Your task to perform on an android device: Do I have any events this weekend? Image 0: 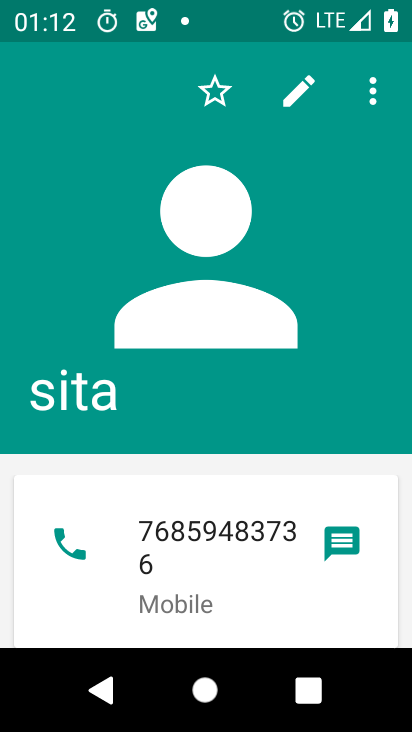
Step 0: press home button
Your task to perform on an android device: Do I have any events this weekend? Image 1: 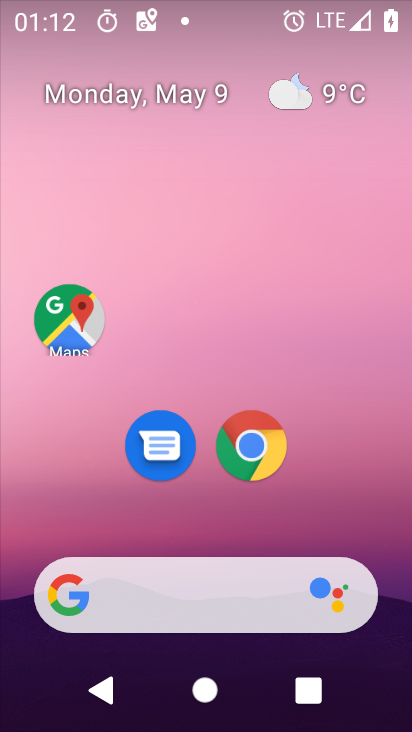
Step 1: drag from (376, 546) to (388, 37)
Your task to perform on an android device: Do I have any events this weekend? Image 2: 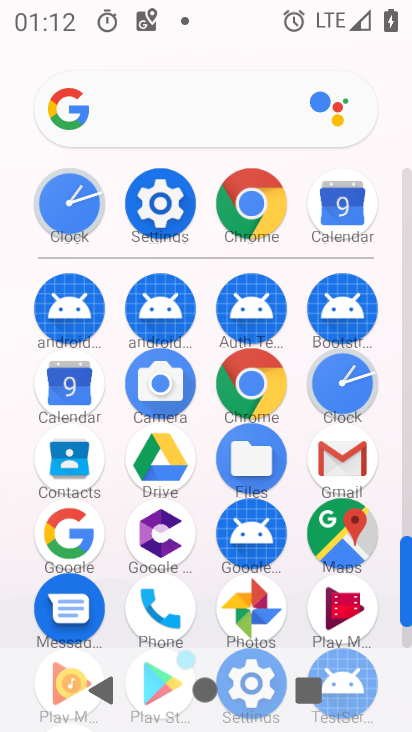
Step 2: click (342, 214)
Your task to perform on an android device: Do I have any events this weekend? Image 3: 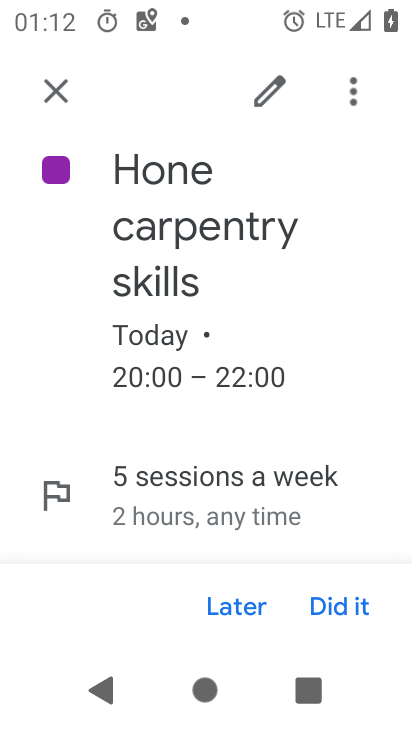
Step 3: click (63, 105)
Your task to perform on an android device: Do I have any events this weekend? Image 4: 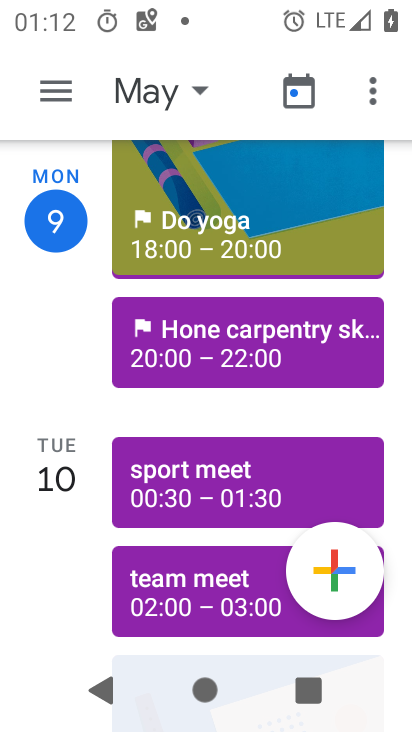
Step 4: click (197, 90)
Your task to perform on an android device: Do I have any events this weekend? Image 5: 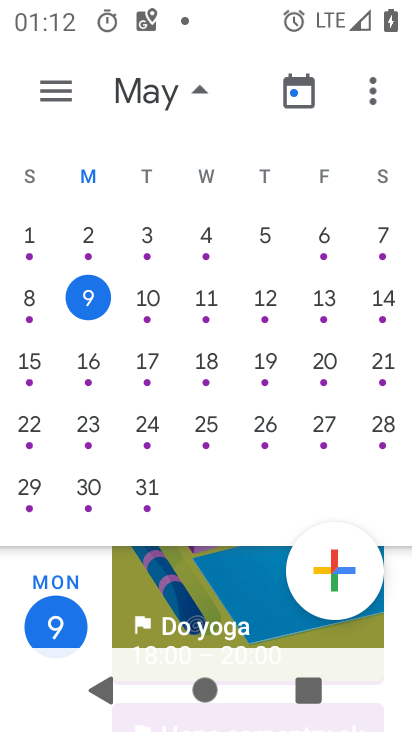
Step 5: click (55, 97)
Your task to perform on an android device: Do I have any events this weekend? Image 6: 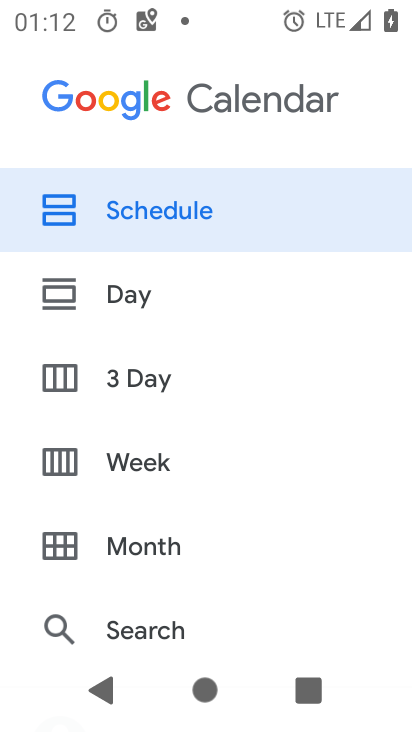
Step 6: click (127, 455)
Your task to perform on an android device: Do I have any events this weekend? Image 7: 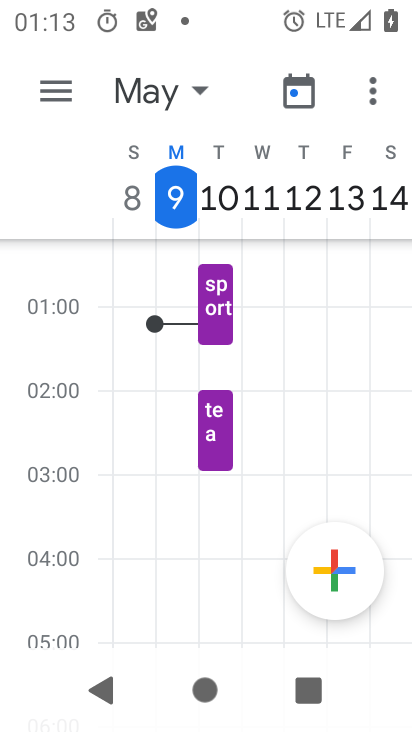
Step 7: drag from (314, 452) to (276, 188)
Your task to perform on an android device: Do I have any events this weekend? Image 8: 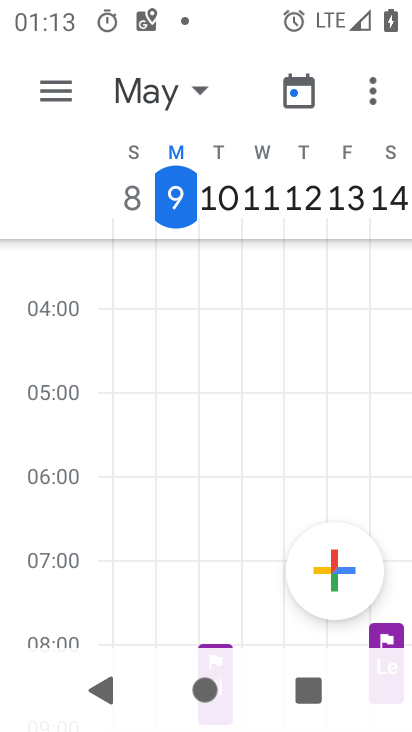
Step 8: drag from (245, 437) to (254, 223)
Your task to perform on an android device: Do I have any events this weekend? Image 9: 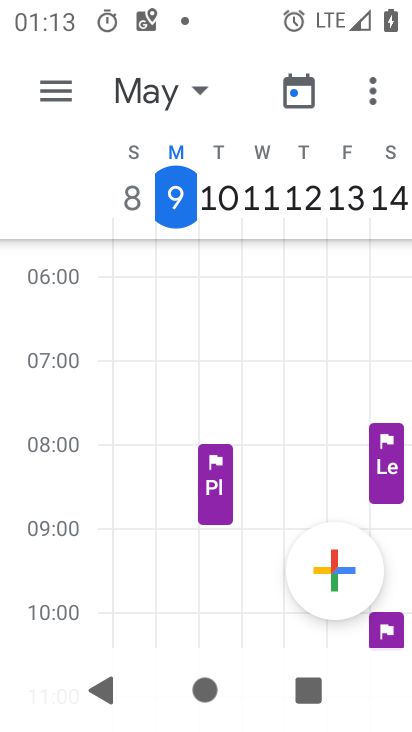
Step 9: drag from (287, 458) to (277, 255)
Your task to perform on an android device: Do I have any events this weekend? Image 10: 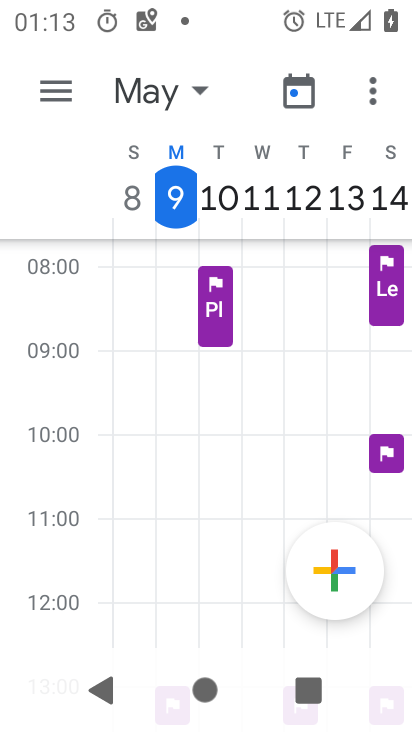
Step 10: click (387, 311)
Your task to perform on an android device: Do I have any events this weekend? Image 11: 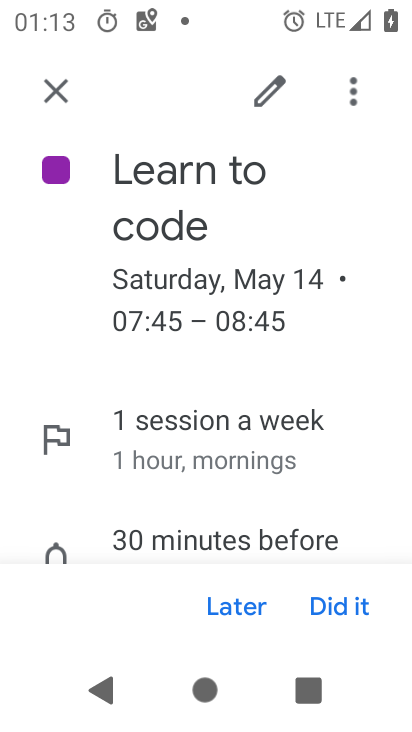
Step 11: task complete